Your task to perform on an android device: toggle sleep mode Image 0: 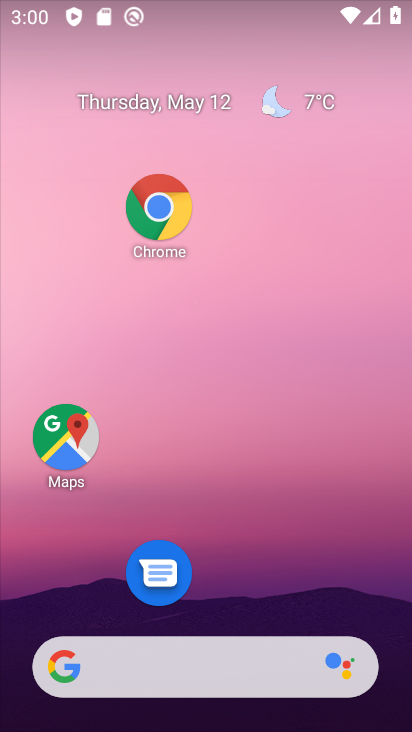
Step 0: drag from (229, 590) to (310, 117)
Your task to perform on an android device: toggle sleep mode Image 1: 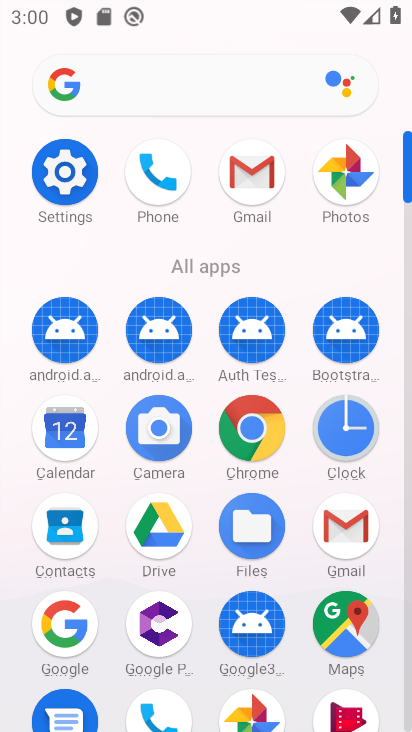
Step 1: click (84, 204)
Your task to perform on an android device: toggle sleep mode Image 2: 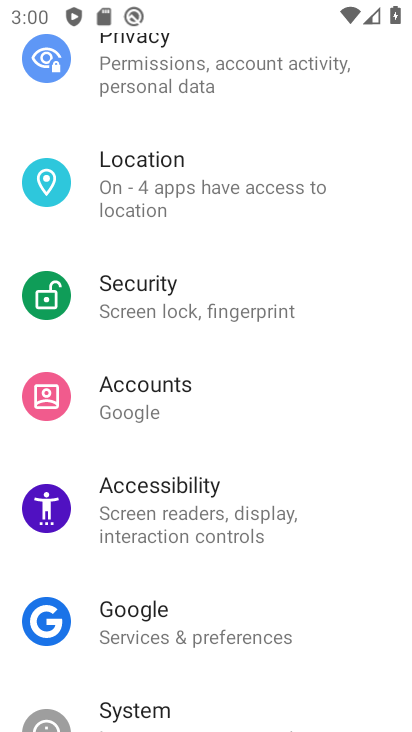
Step 2: drag from (249, 196) to (211, 632)
Your task to perform on an android device: toggle sleep mode Image 3: 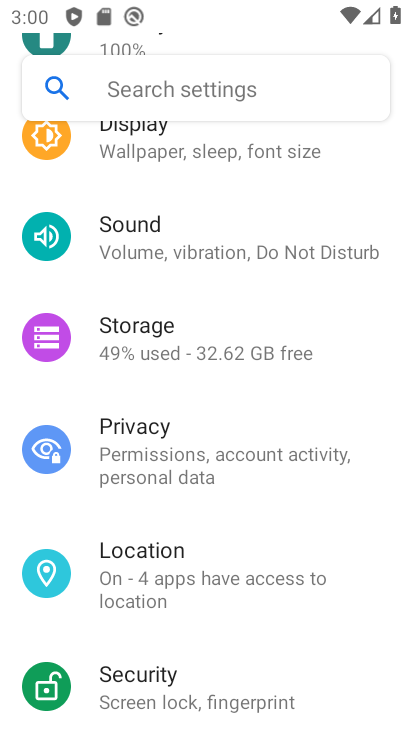
Step 3: click (252, 86)
Your task to perform on an android device: toggle sleep mode Image 4: 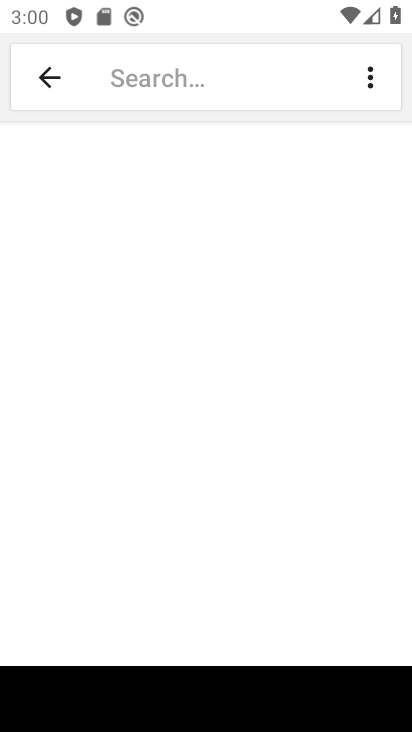
Step 4: type ""
Your task to perform on an android device: toggle sleep mode Image 5: 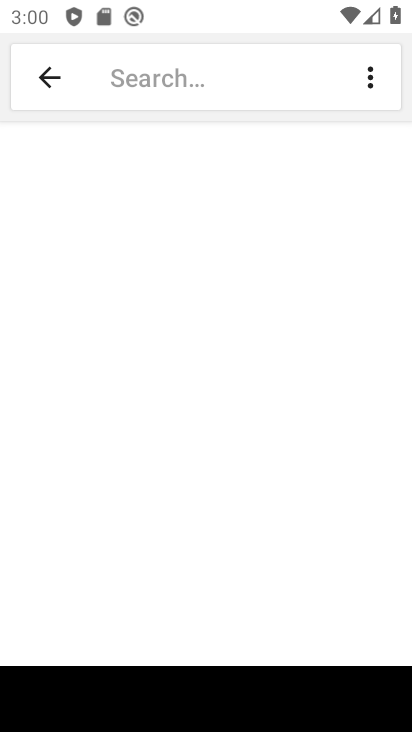
Step 5: type "sleep mode"
Your task to perform on an android device: toggle sleep mode Image 6: 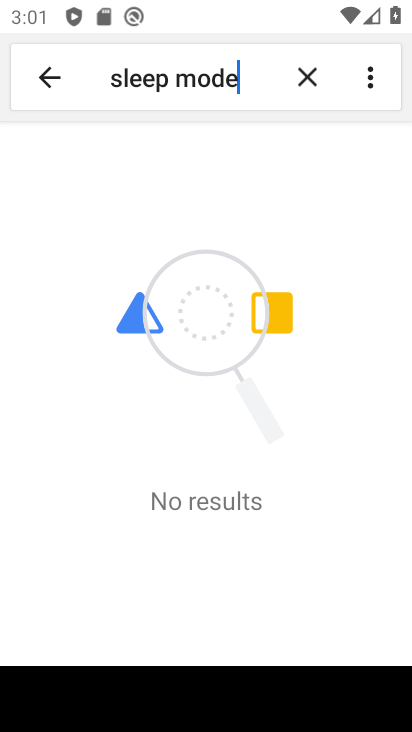
Step 6: task complete